Your task to perform on an android device: Open network settings Image 0: 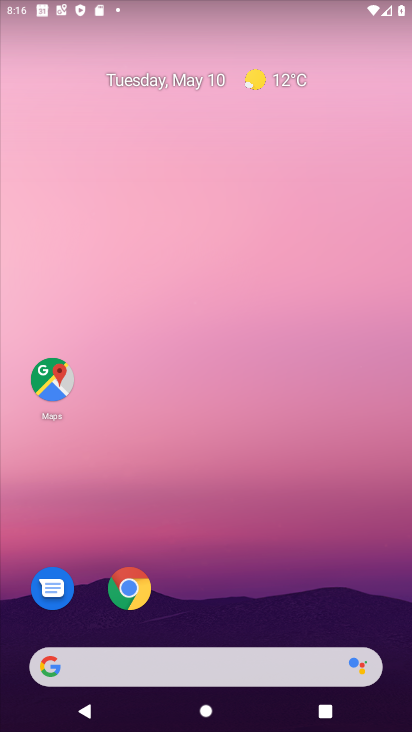
Step 0: drag from (251, 608) to (236, 77)
Your task to perform on an android device: Open network settings Image 1: 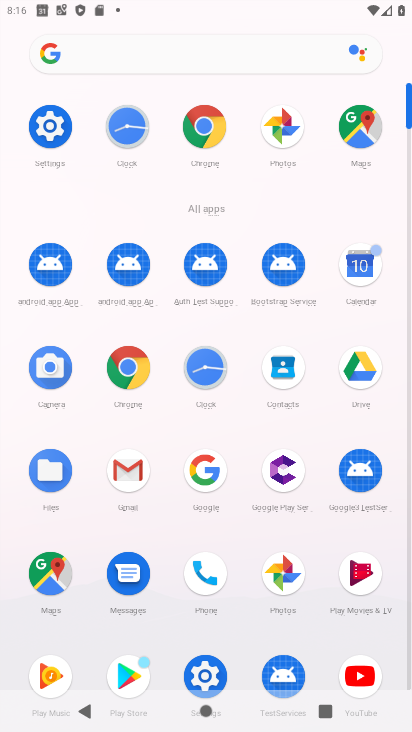
Step 1: click (51, 125)
Your task to perform on an android device: Open network settings Image 2: 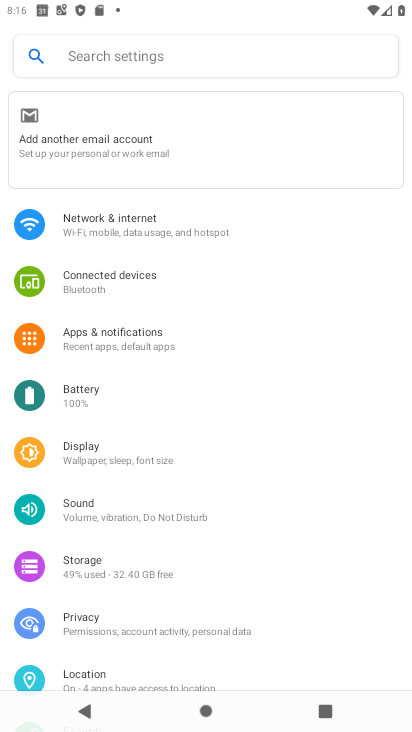
Step 2: click (188, 226)
Your task to perform on an android device: Open network settings Image 3: 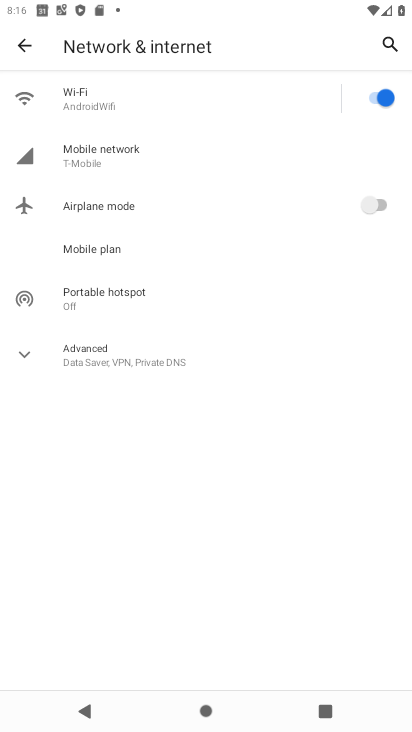
Step 3: click (163, 145)
Your task to perform on an android device: Open network settings Image 4: 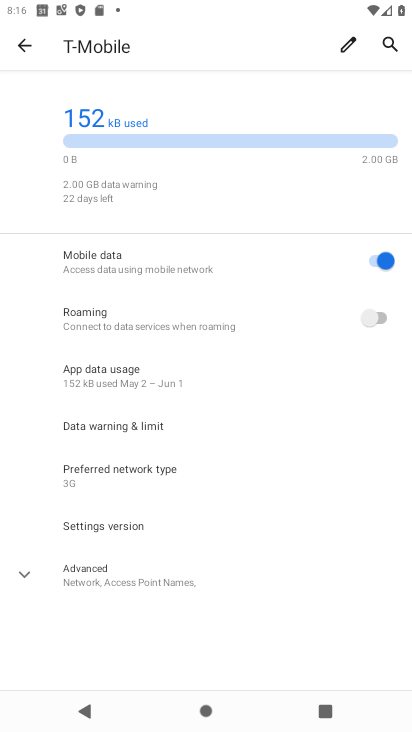
Step 4: task complete